Your task to perform on an android device: turn off priority inbox in the gmail app Image 0: 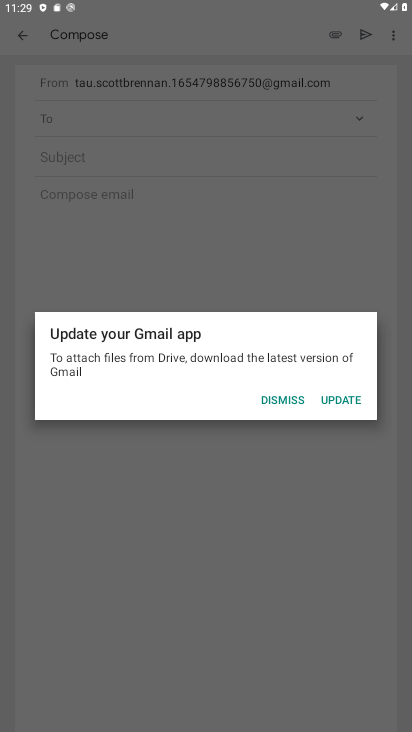
Step 0: click (350, 390)
Your task to perform on an android device: turn off priority inbox in the gmail app Image 1: 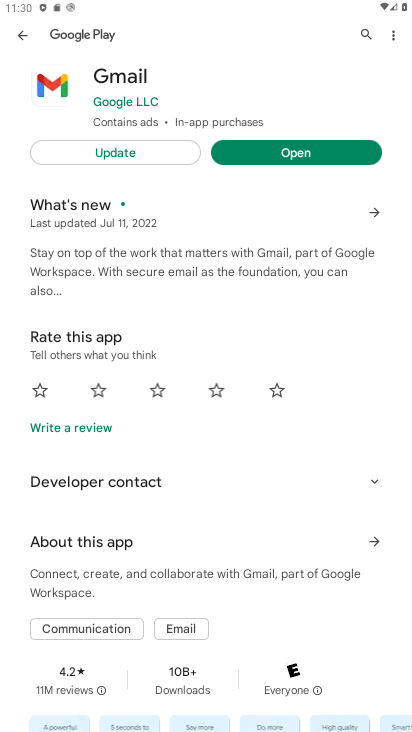
Step 1: click (130, 155)
Your task to perform on an android device: turn off priority inbox in the gmail app Image 2: 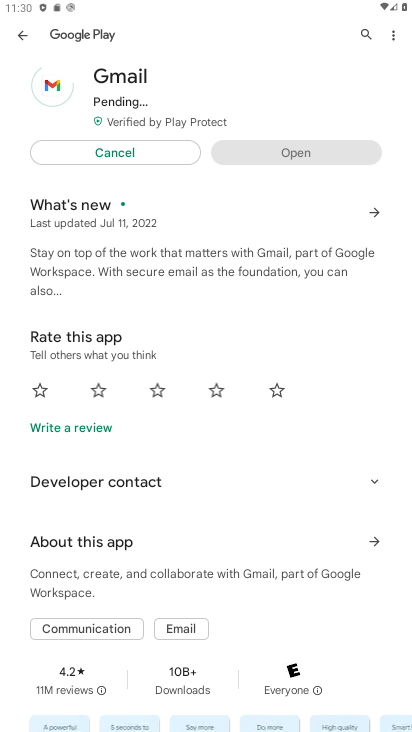
Step 2: task complete